Your task to perform on an android device: Go to Maps Image 0: 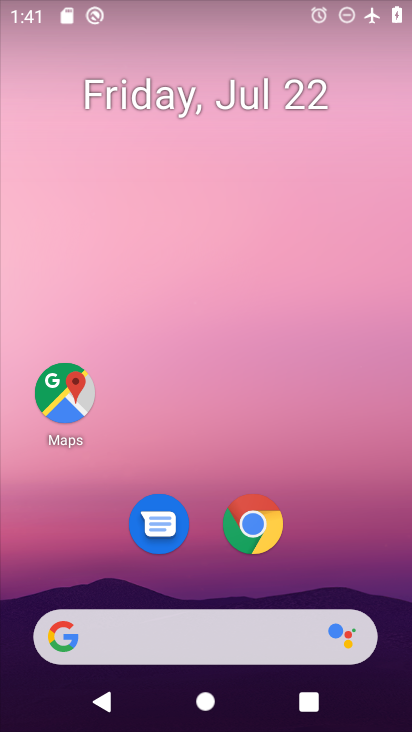
Step 0: click (65, 391)
Your task to perform on an android device: Go to Maps Image 1: 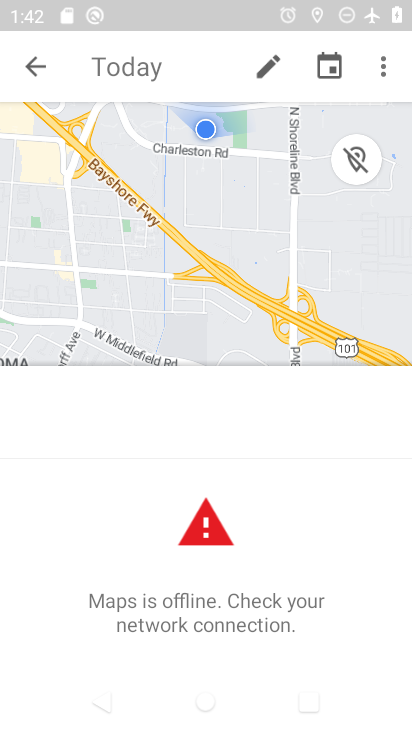
Step 1: click (37, 61)
Your task to perform on an android device: Go to Maps Image 2: 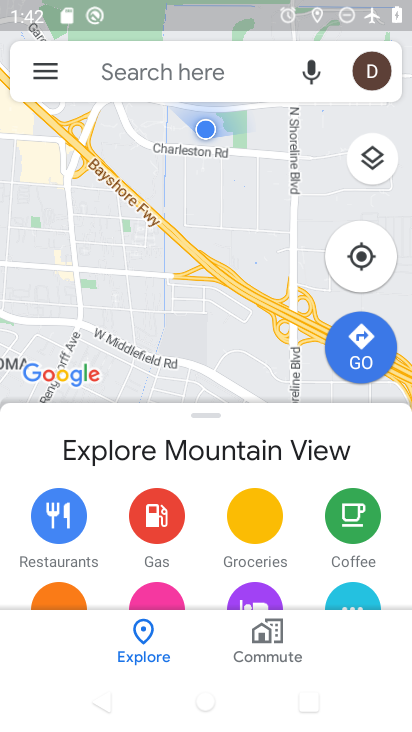
Step 2: task complete